Your task to perform on an android device: Go to internet settings Image 0: 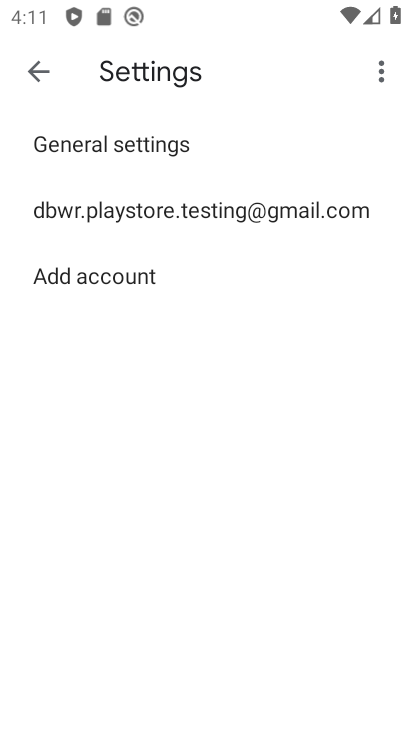
Step 0: click (114, 145)
Your task to perform on an android device: Go to internet settings Image 1: 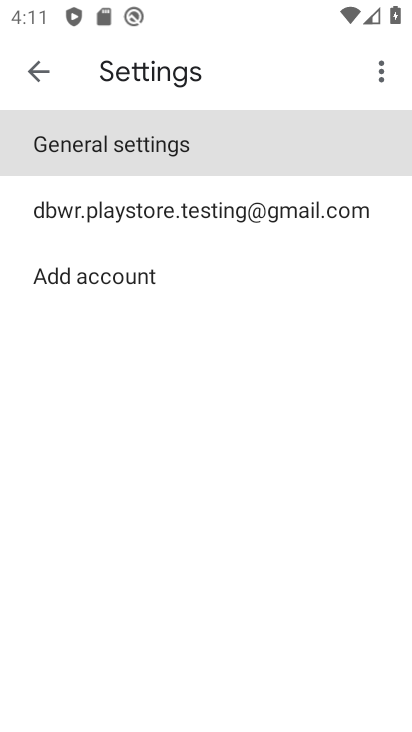
Step 1: click (113, 146)
Your task to perform on an android device: Go to internet settings Image 2: 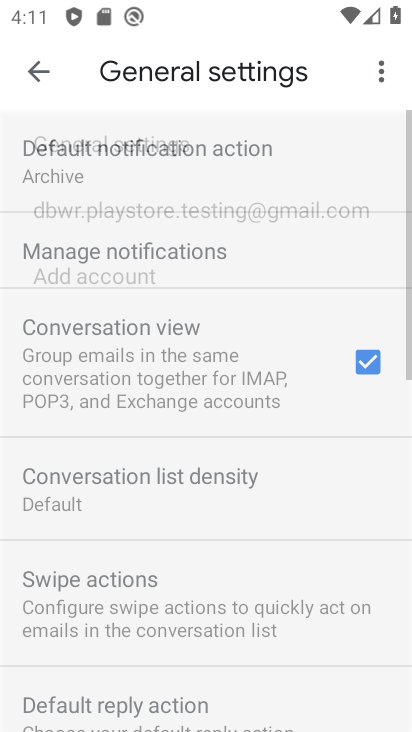
Step 2: click (113, 146)
Your task to perform on an android device: Go to internet settings Image 3: 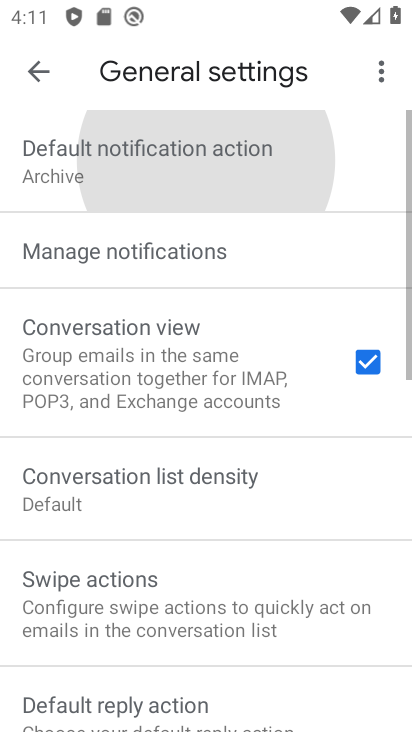
Step 3: click (113, 146)
Your task to perform on an android device: Go to internet settings Image 4: 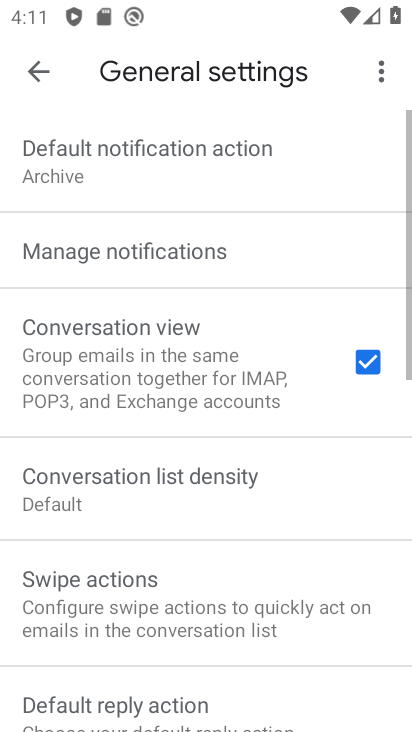
Step 4: click (41, 74)
Your task to perform on an android device: Go to internet settings Image 5: 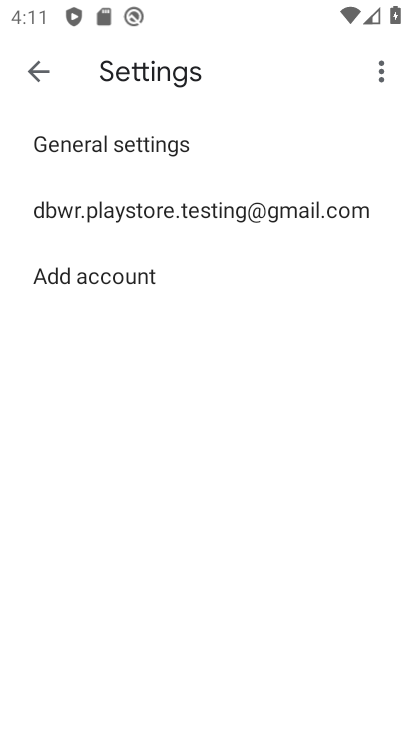
Step 5: click (28, 57)
Your task to perform on an android device: Go to internet settings Image 6: 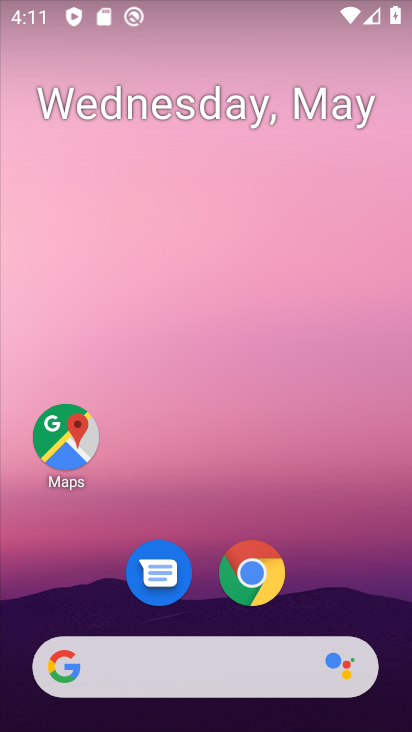
Step 6: drag from (226, 391) to (168, 15)
Your task to perform on an android device: Go to internet settings Image 7: 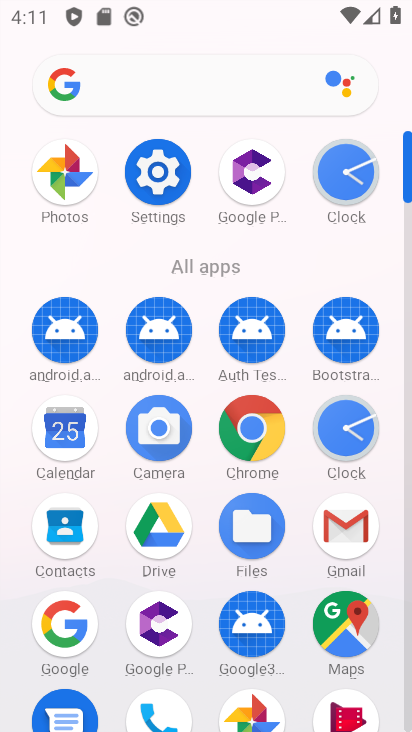
Step 7: click (158, 179)
Your task to perform on an android device: Go to internet settings Image 8: 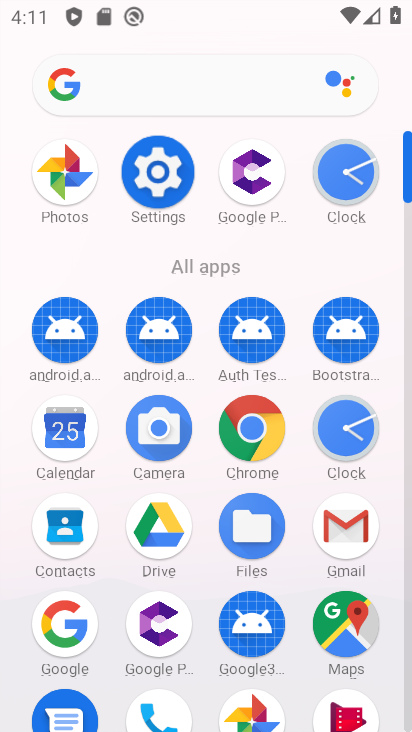
Step 8: click (160, 179)
Your task to perform on an android device: Go to internet settings Image 9: 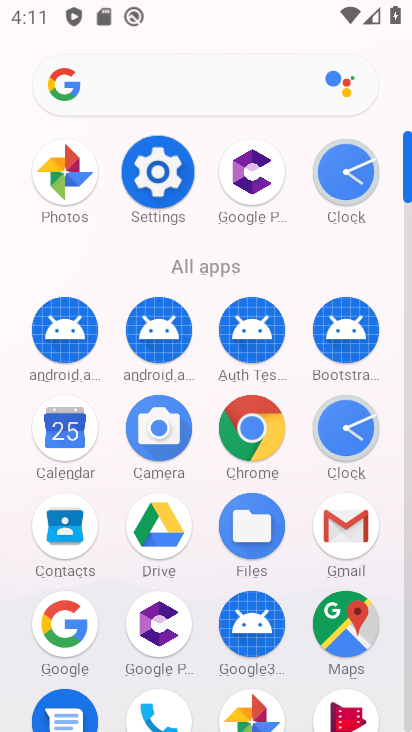
Step 9: click (161, 179)
Your task to perform on an android device: Go to internet settings Image 10: 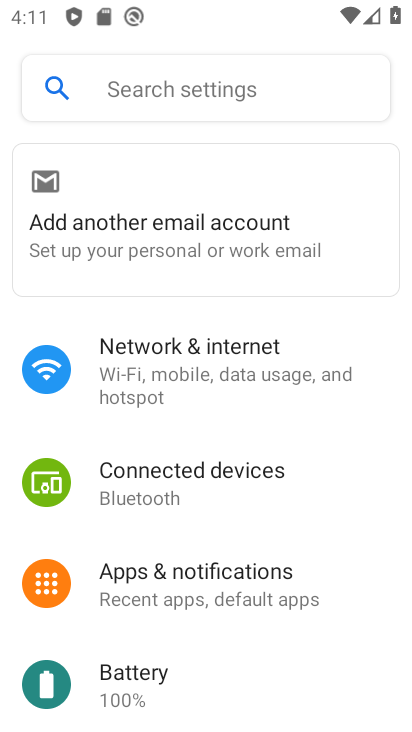
Step 10: click (151, 359)
Your task to perform on an android device: Go to internet settings Image 11: 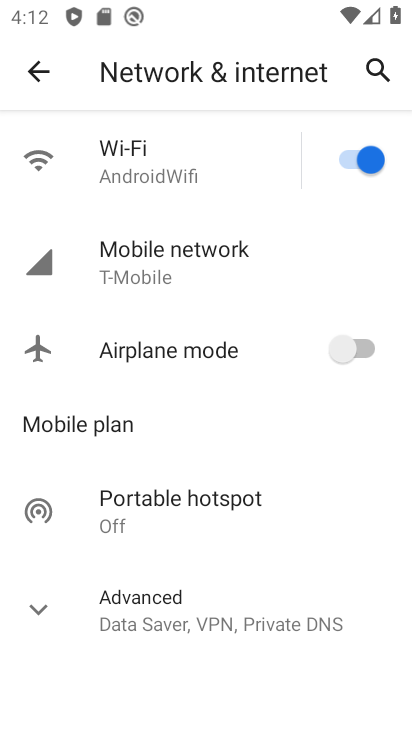
Step 11: task complete